Your task to perform on an android device: Search for rayovac triple a on ebay, select the first entry, add it to the cart, then select checkout. Image 0: 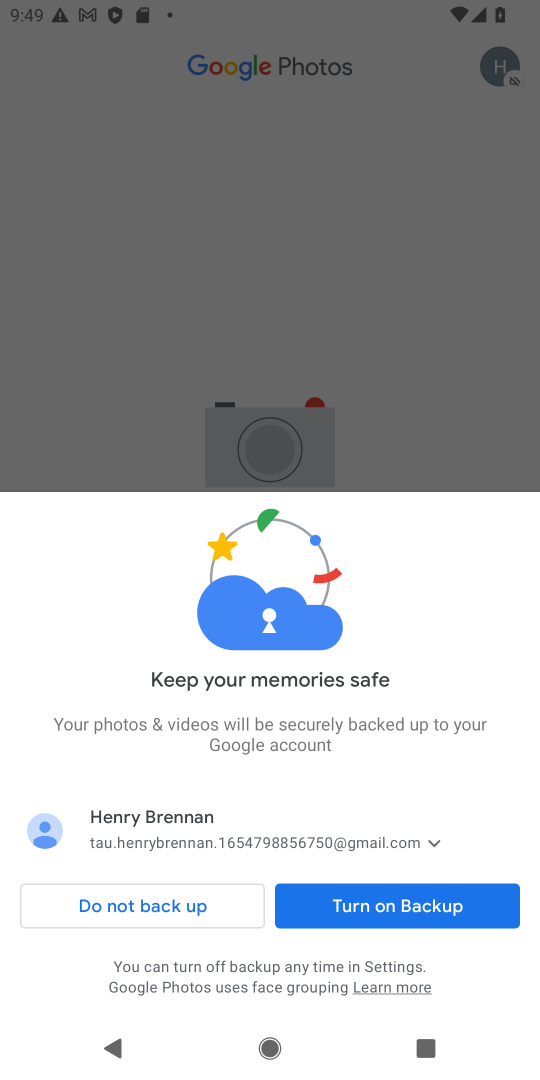
Step 0: press home button
Your task to perform on an android device: Search for rayovac triple a on ebay, select the first entry, add it to the cart, then select checkout. Image 1: 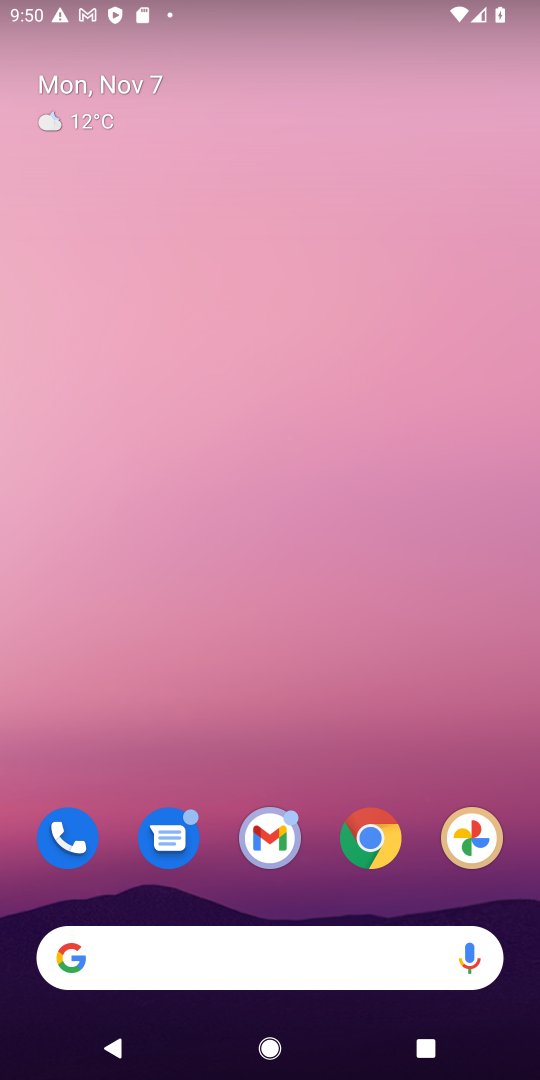
Step 1: click (339, 968)
Your task to perform on an android device: Search for rayovac triple a on ebay, select the first entry, add it to the cart, then select checkout. Image 2: 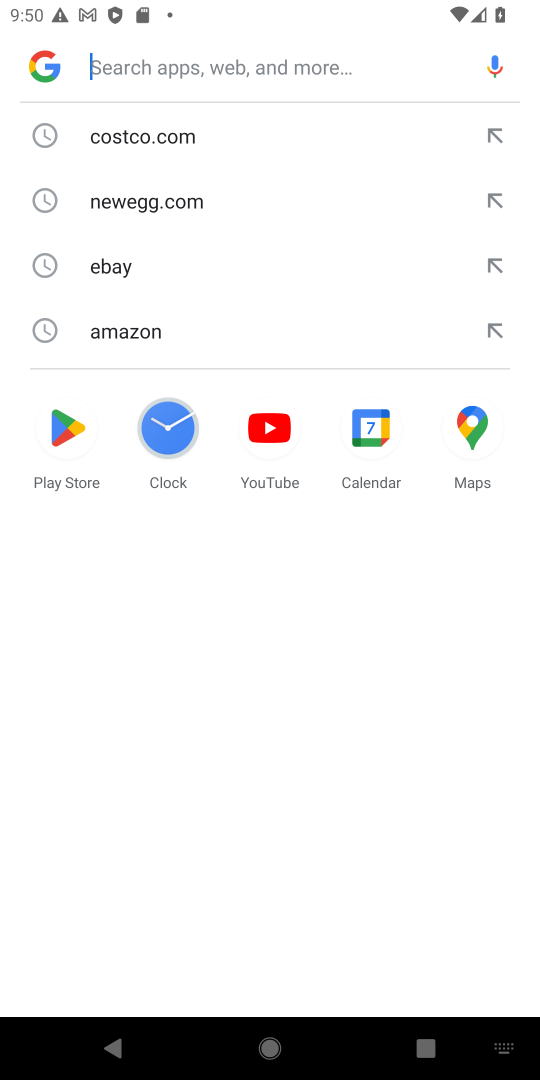
Step 2: click (115, 259)
Your task to perform on an android device: Search for rayovac triple a on ebay, select the first entry, add it to the cart, then select checkout. Image 3: 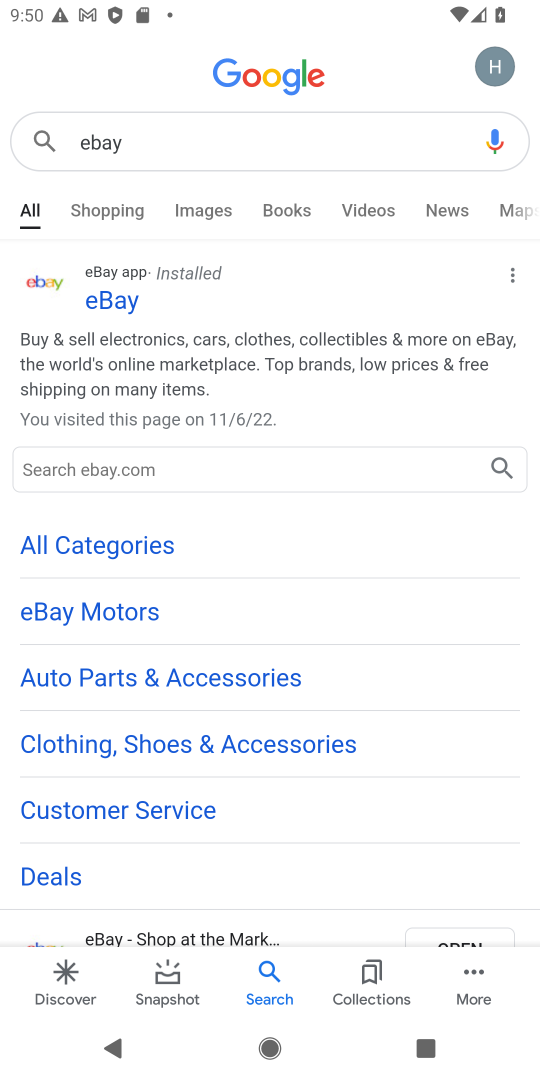
Step 3: click (76, 476)
Your task to perform on an android device: Search for rayovac triple a on ebay, select the first entry, add it to the cart, then select checkout. Image 4: 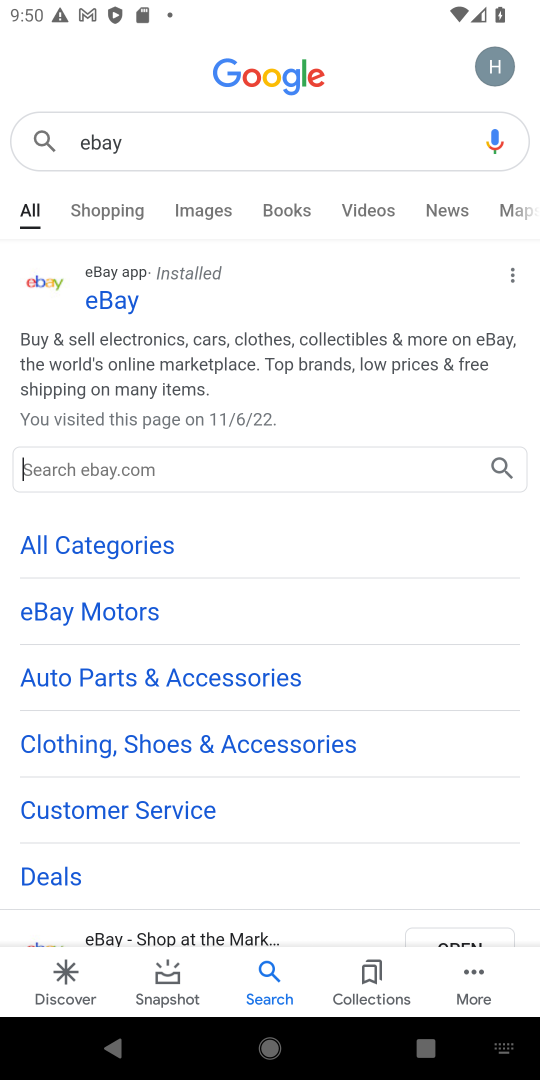
Step 4: type "rayovac triple a battery"
Your task to perform on an android device: Search for rayovac triple a on ebay, select the first entry, add it to the cart, then select checkout. Image 5: 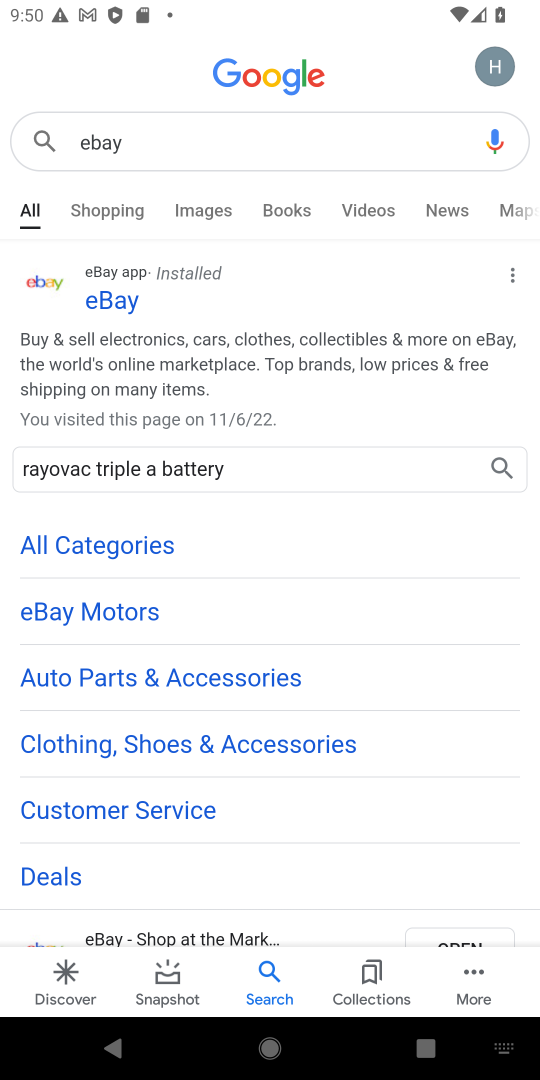
Step 5: click (493, 466)
Your task to perform on an android device: Search for rayovac triple a on ebay, select the first entry, add it to the cart, then select checkout. Image 6: 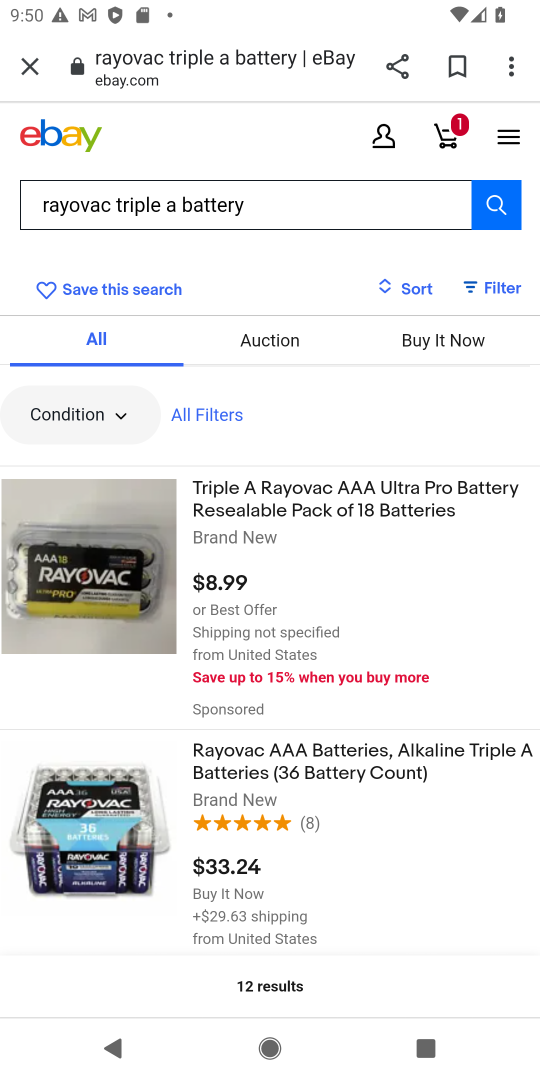
Step 6: click (350, 487)
Your task to perform on an android device: Search for rayovac triple a on ebay, select the first entry, add it to the cart, then select checkout. Image 7: 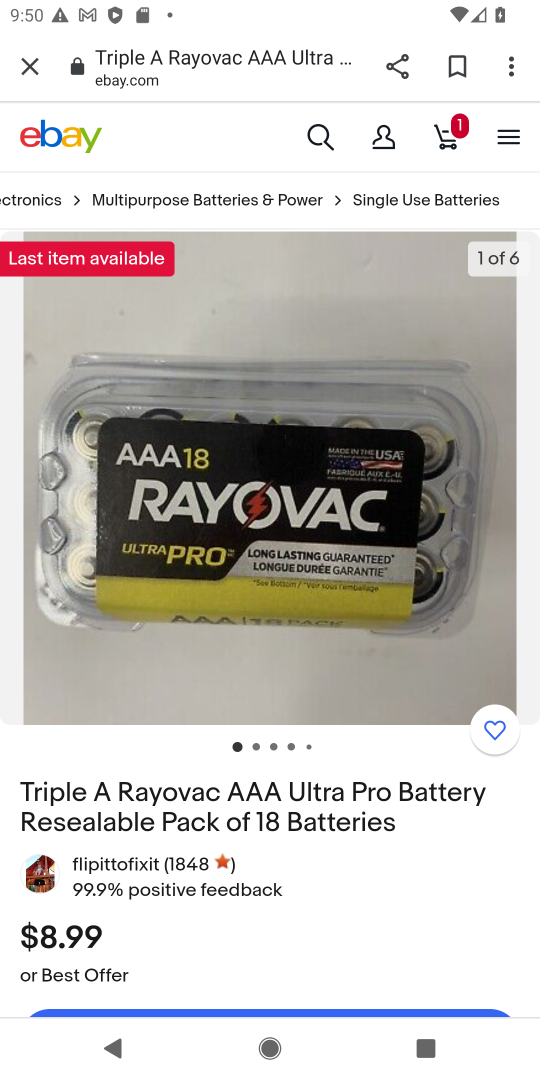
Step 7: drag from (238, 925) to (308, 312)
Your task to perform on an android device: Search for rayovac triple a on ebay, select the first entry, add it to the cart, then select checkout. Image 8: 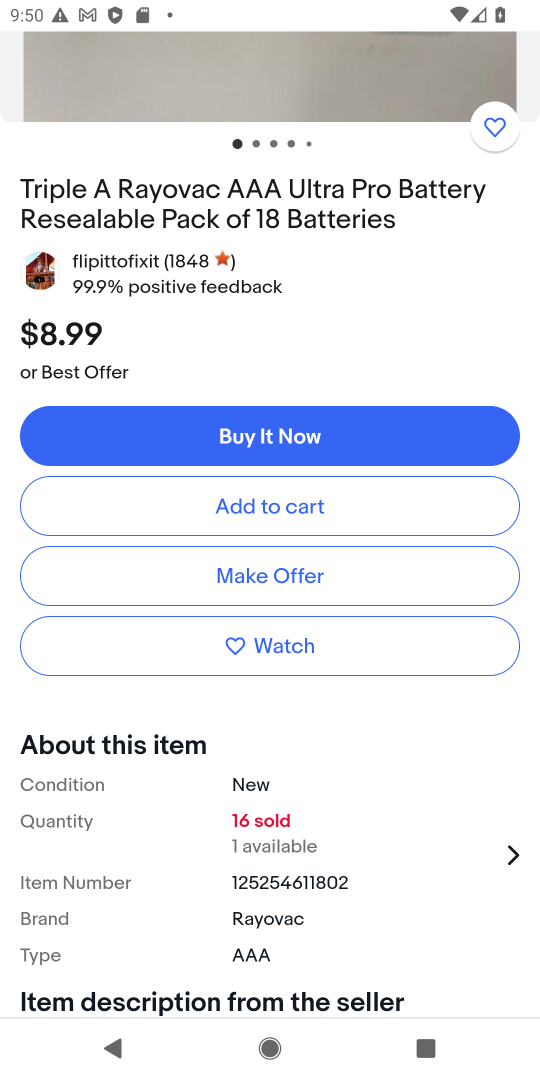
Step 8: click (287, 509)
Your task to perform on an android device: Search for rayovac triple a on ebay, select the first entry, add it to the cart, then select checkout. Image 9: 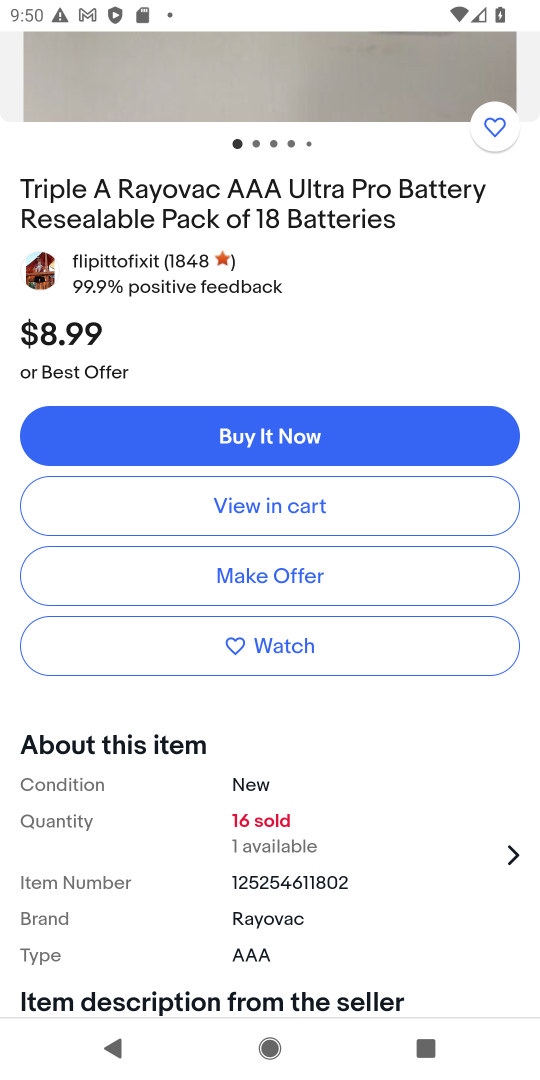
Step 9: click (287, 509)
Your task to perform on an android device: Search for rayovac triple a on ebay, select the first entry, add it to the cart, then select checkout. Image 10: 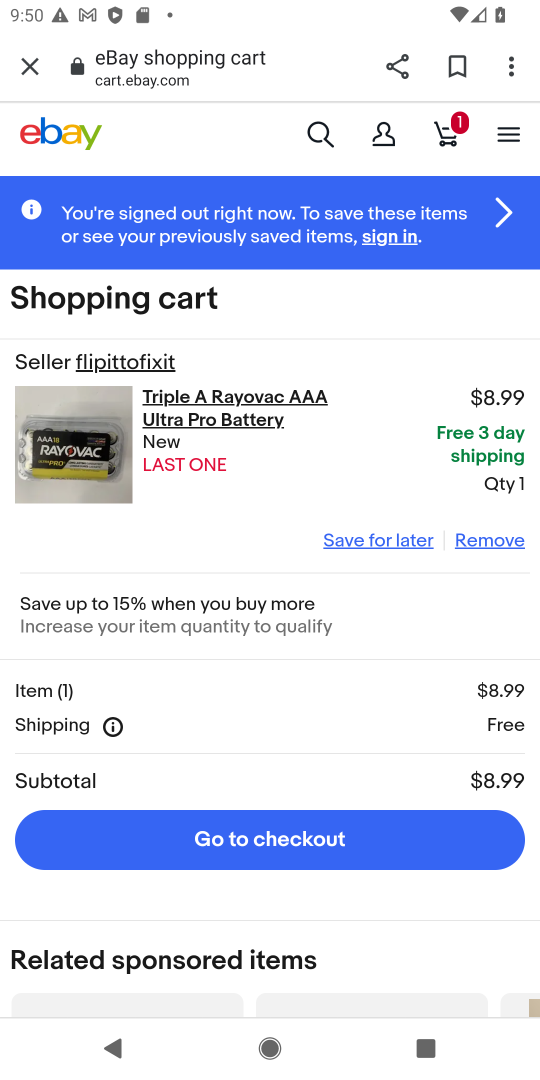
Step 10: click (344, 842)
Your task to perform on an android device: Search for rayovac triple a on ebay, select the first entry, add it to the cart, then select checkout. Image 11: 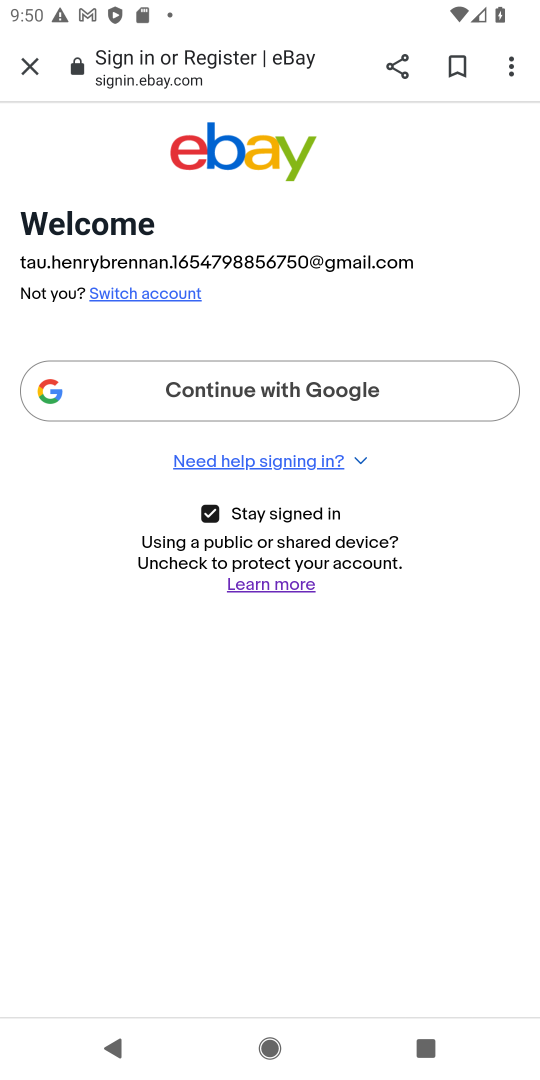
Step 11: task complete